Your task to perform on an android device: Turn on the flashlight Image 0: 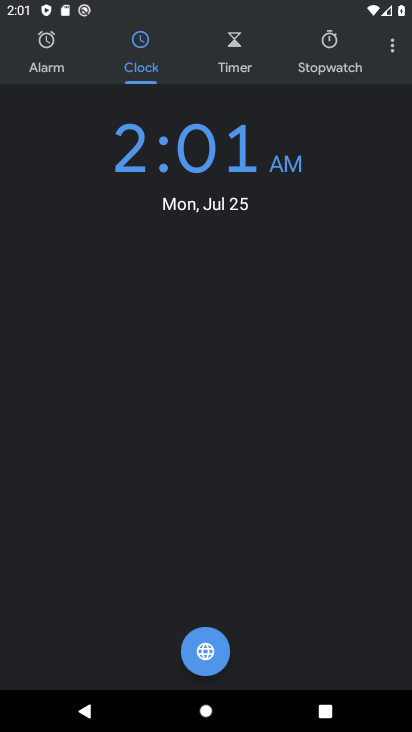
Step 0: drag from (248, 15) to (122, 529)
Your task to perform on an android device: Turn on the flashlight Image 1: 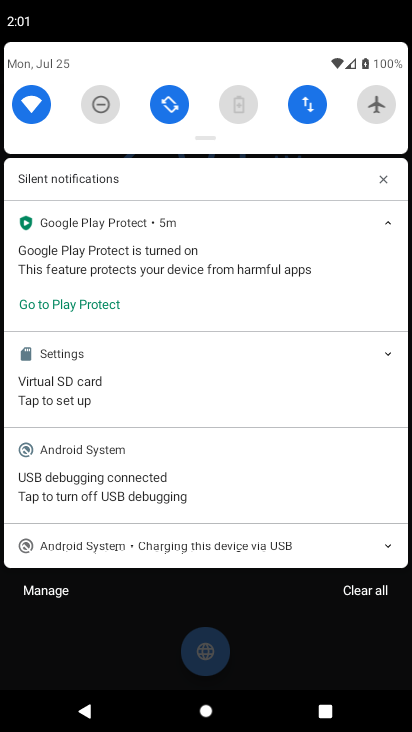
Step 1: drag from (203, 136) to (100, 706)
Your task to perform on an android device: Turn on the flashlight Image 2: 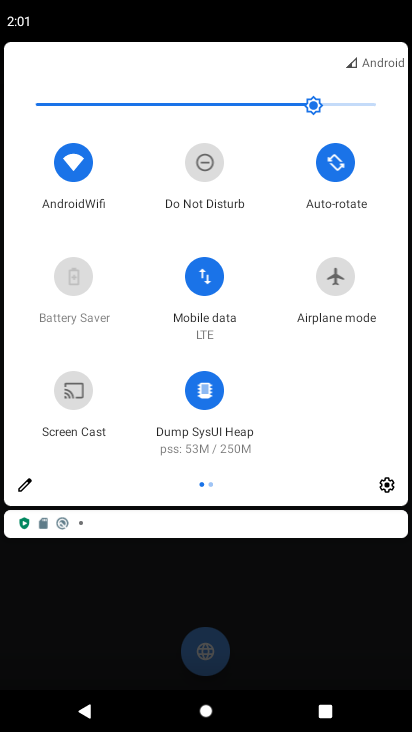
Step 2: click (32, 486)
Your task to perform on an android device: Turn on the flashlight Image 3: 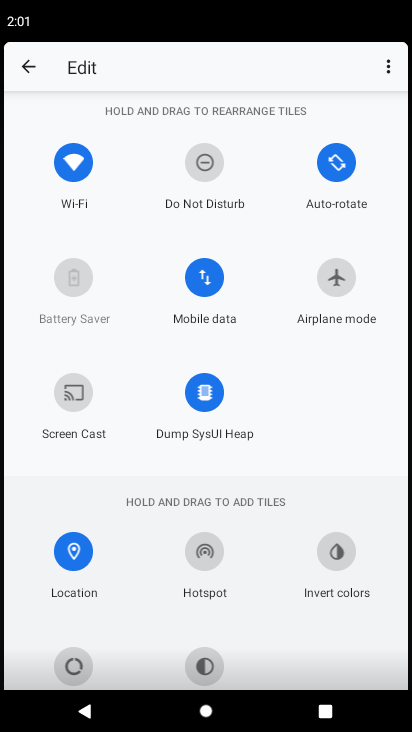
Step 3: task complete